Your task to perform on an android device: Go to Google Image 0: 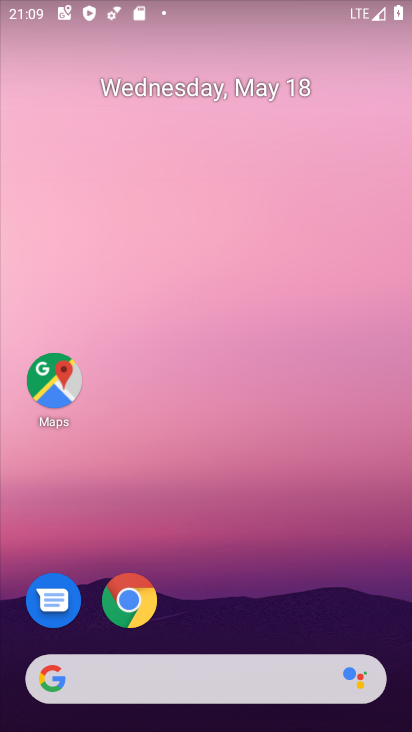
Step 0: drag from (206, 629) to (341, 63)
Your task to perform on an android device: Go to Google Image 1: 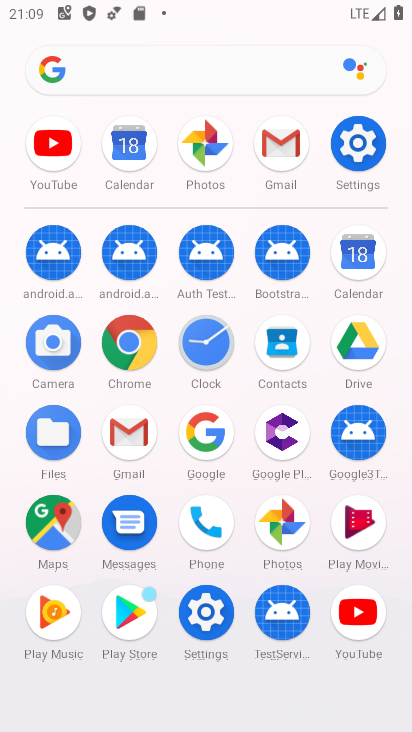
Step 1: click (209, 440)
Your task to perform on an android device: Go to Google Image 2: 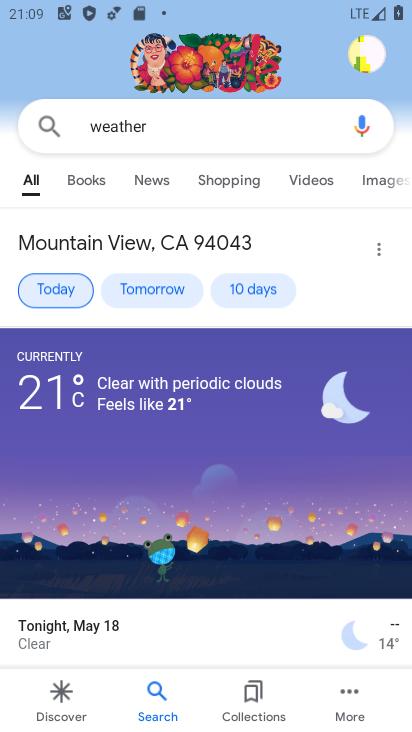
Step 2: task complete